Your task to perform on an android device: turn off javascript in the chrome app Image 0: 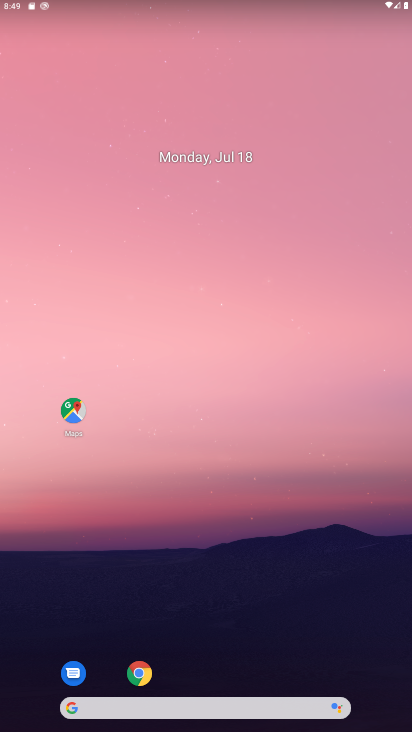
Step 0: drag from (214, 671) to (301, 88)
Your task to perform on an android device: turn off javascript in the chrome app Image 1: 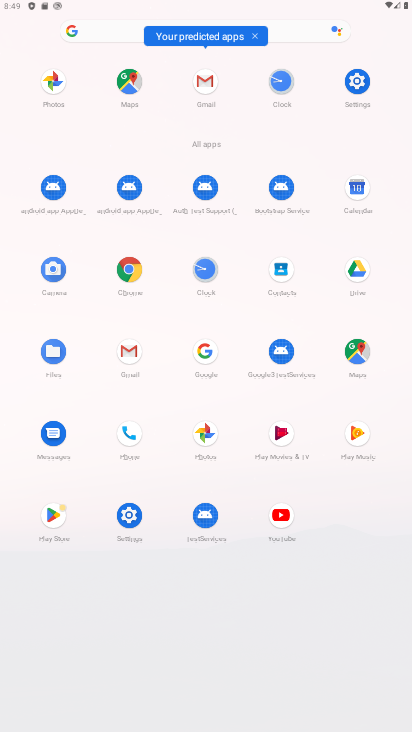
Step 1: click (140, 286)
Your task to perform on an android device: turn off javascript in the chrome app Image 2: 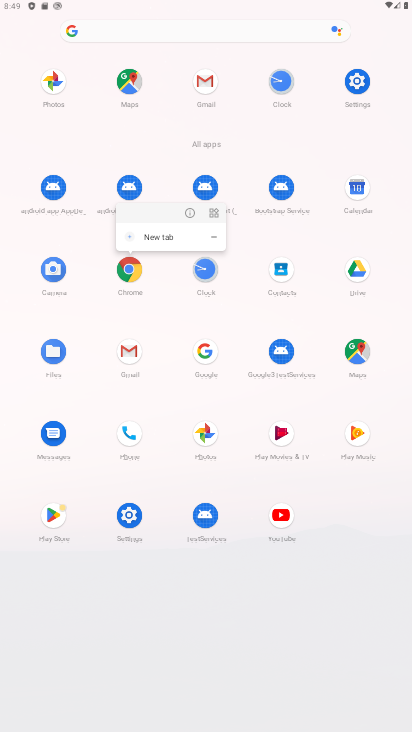
Step 2: click (138, 275)
Your task to perform on an android device: turn off javascript in the chrome app Image 3: 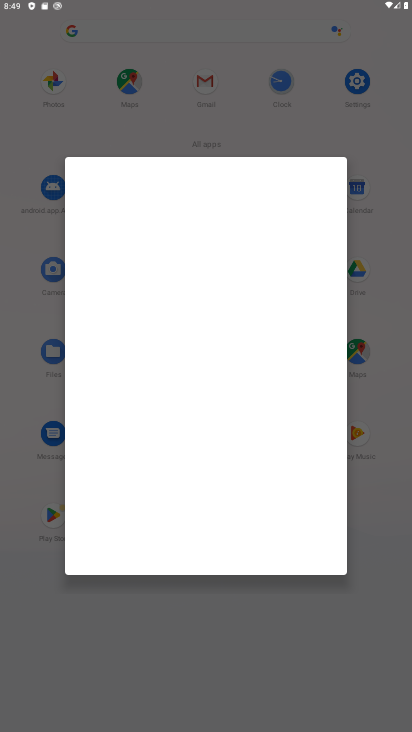
Step 3: click (127, 273)
Your task to perform on an android device: turn off javascript in the chrome app Image 4: 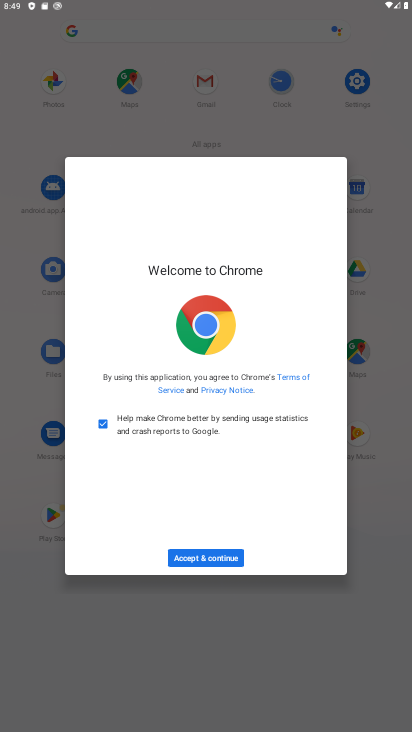
Step 4: click (223, 554)
Your task to perform on an android device: turn off javascript in the chrome app Image 5: 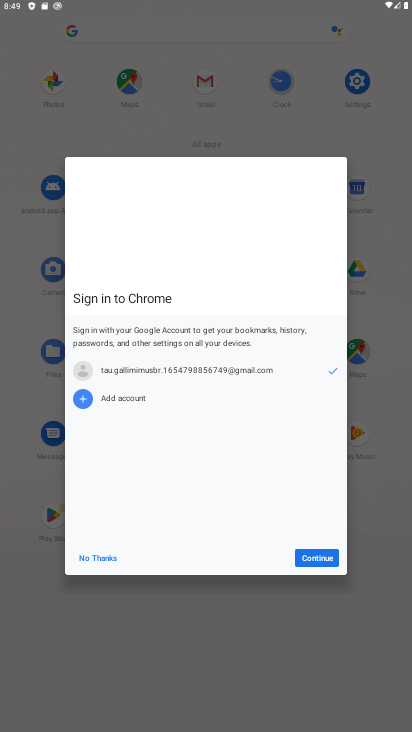
Step 5: click (323, 560)
Your task to perform on an android device: turn off javascript in the chrome app Image 6: 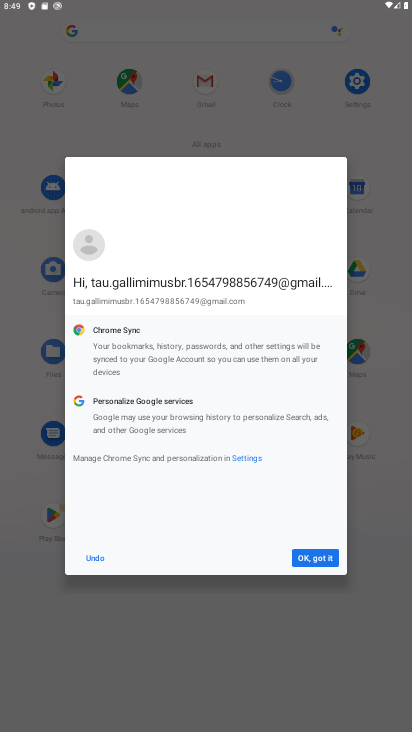
Step 6: click (323, 560)
Your task to perform on an android device: turn off javascript in the chrome app Image 7: 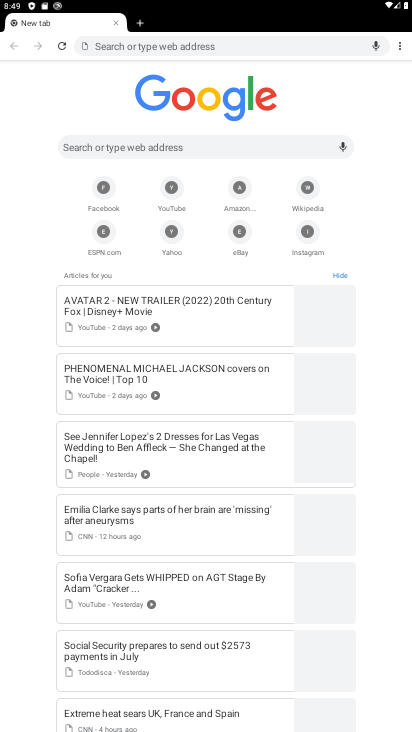
Step 7: click (396, 42)
Your task to perform on an android device: turn off javascript in the chrome app Image 8: 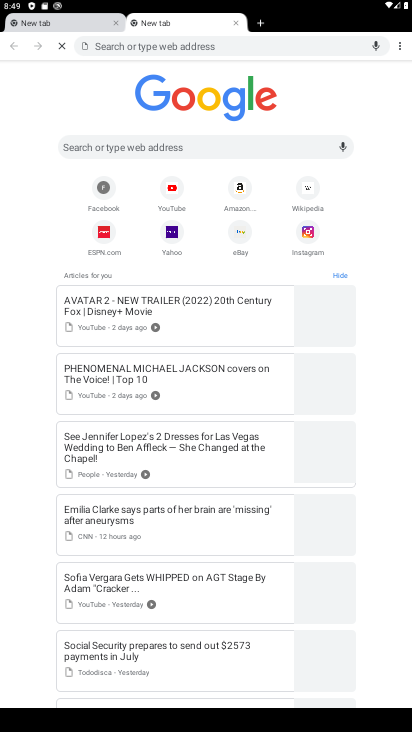
Step 8: drag from (400, 42) to (356, 210)
Your task to perform on an android device: turn off javascript in the chrome app Image 9: 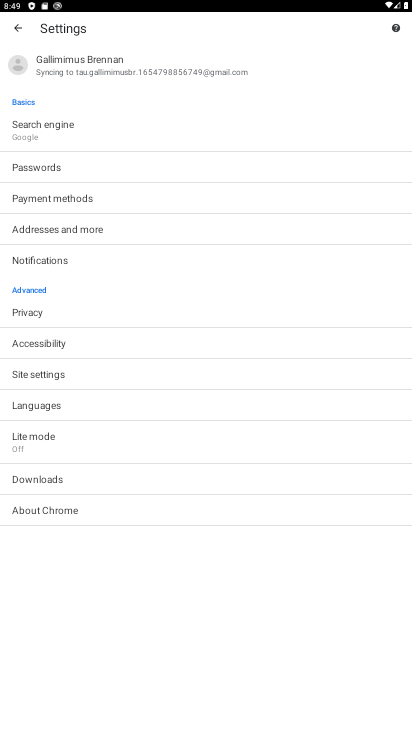
Step 9: click (70, 375)
Your task to perform on an android device: turn off javascript in the chrome app Image 10: 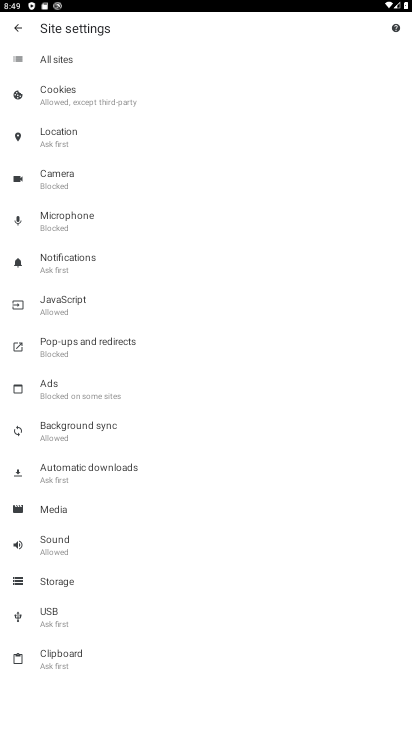
Step 10: click (112, 308)
Your task to perform on an android device: turn off javascript in the chrome app Image 11: 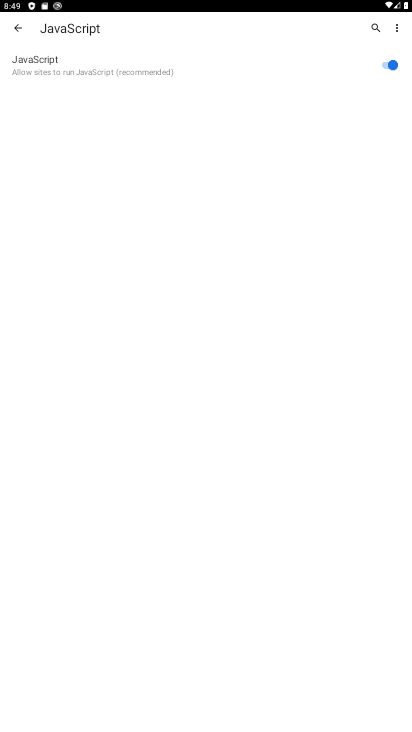
Step 11: click (382, 61)
Your task to perform on an android device: turn off javascript in the chrome app Image 12: 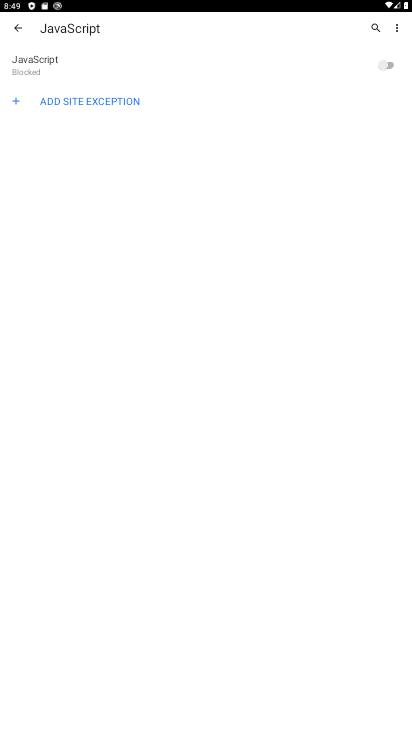
Step 12: task complete